Your task to perform on an android device: check data usage Image 0: 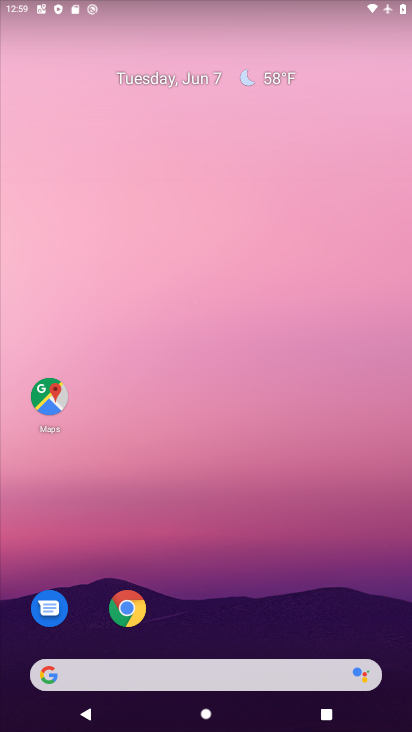
Step 0: drag from (309, 472) to (284, 160)
Your task to perform on an android device: check data usage Image 1: 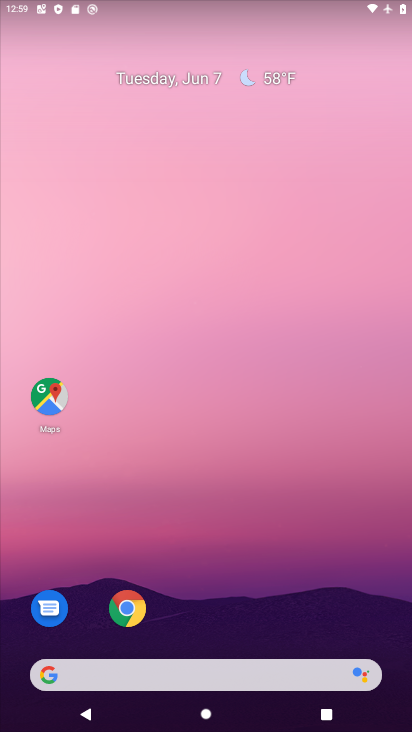
Step 1: drag from (257, 582) to (343, 8)
Your task to perform on an android device: check data usage Image 2: 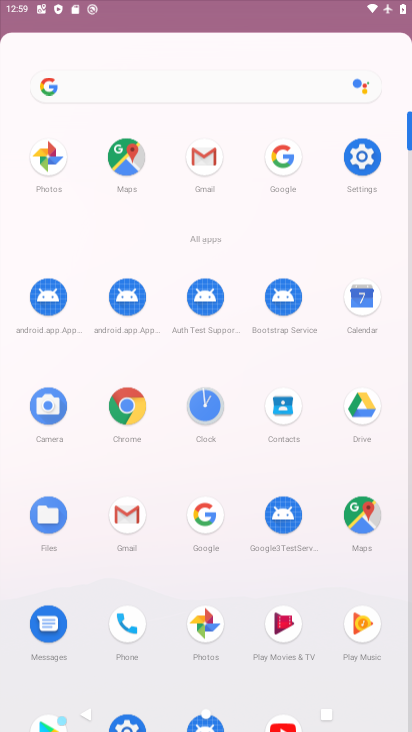
Step 2: click (357, 168)
Your task to perform on an android device: check data usage Image 3: 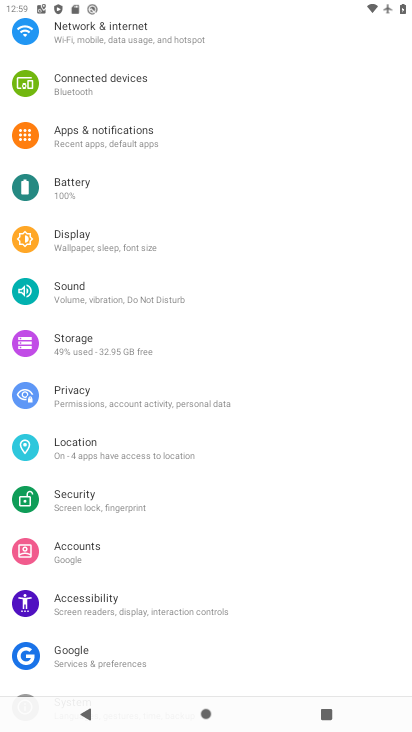
Step 3: drag from (166, 122) to (229, 688)
Your task to perform on an android device: check data usage Image 4: 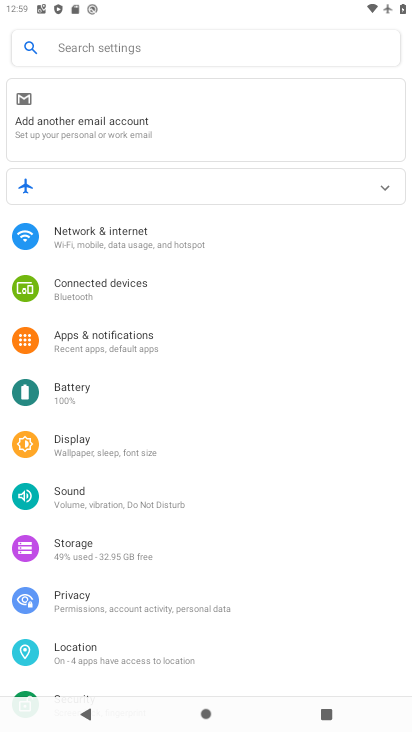
Step 4: click (135, 225)
Your task to perform on an android device: check data usage Image 5: 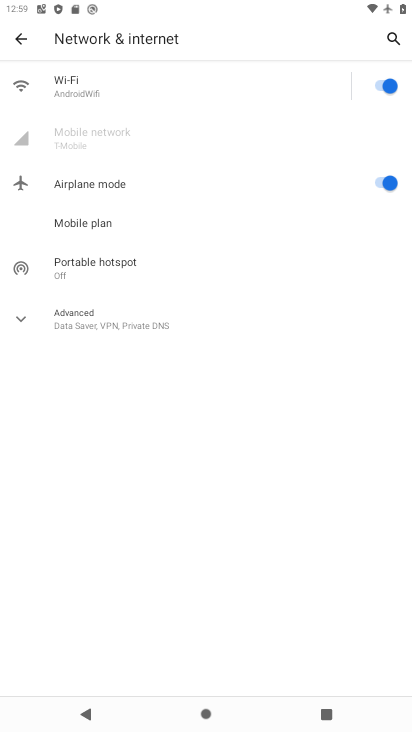
Step 5: click (104, 153)
Your task to perform on an android device: check data usage Image 6: 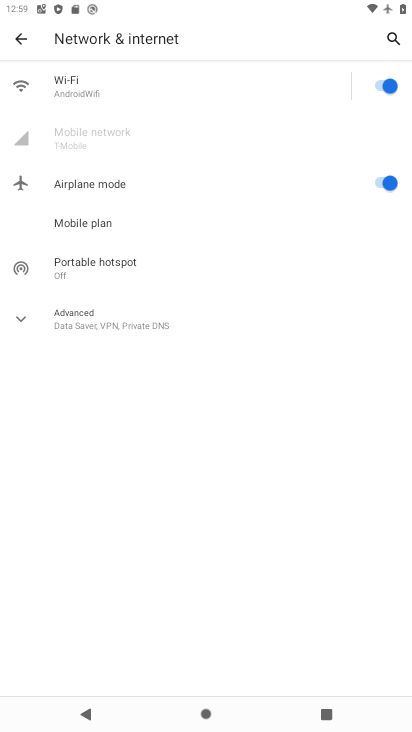
Step 6: click (84, 92)
Your task to perform on an android device: check data usage Image 7: 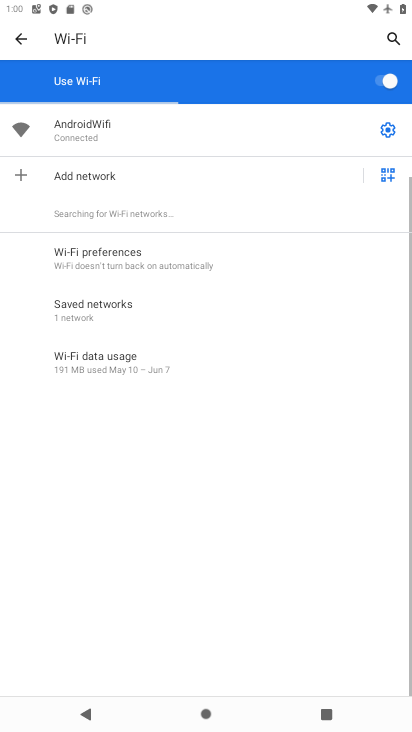
Step 7: click (114, 350)
Your task to perform on an android device: check data usage Image 8: 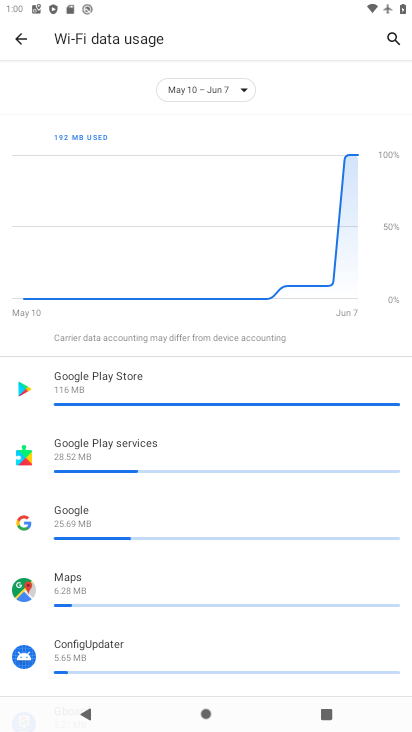
Step 8: task complete